Your task to perform on an android device: turn on javascript in the chrome app Image 0: 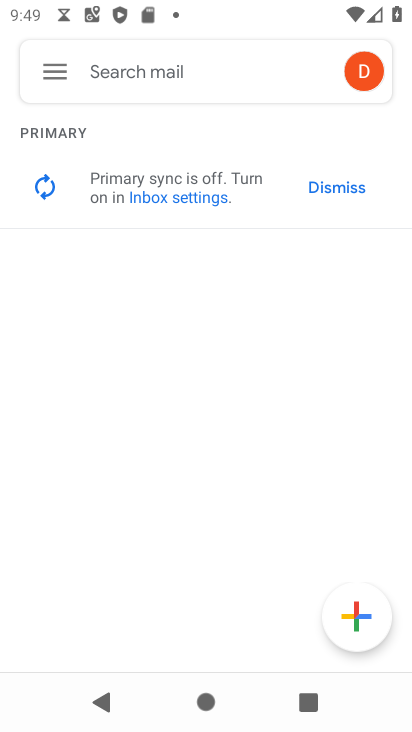
Step 0: press home button
Your task to perform on an android device: turn on javascript in the chrome app Image 1: 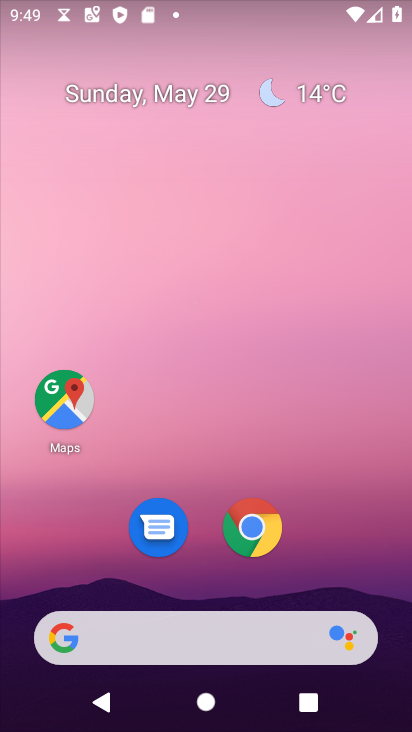
Step 1: click (249, 531)
Your task to perform on an android device: turn on javascript in the chrome app Image 2: 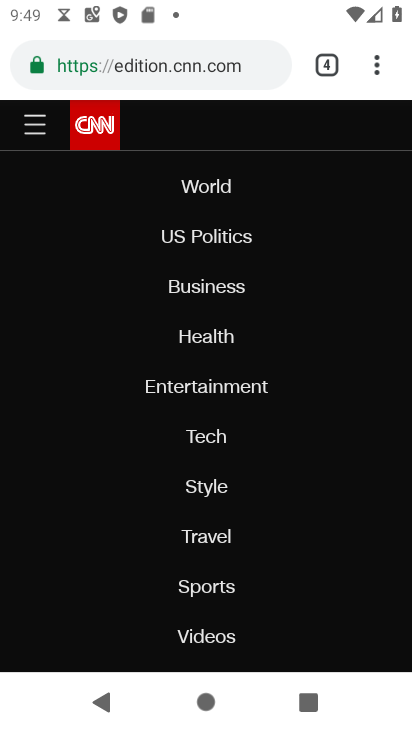
Step 2: drag from (375, 68) to (241, 578)
Your task to perform on an android device: turn on javascript in the chrome app Image 3: 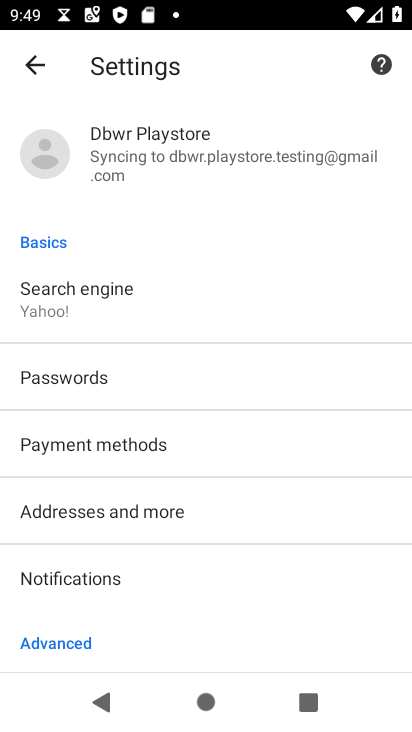
Step 3: drag from (195, 623) to (292, 149)
Your task to perform on an android device: turn on javascript in the chrome app Image 4: 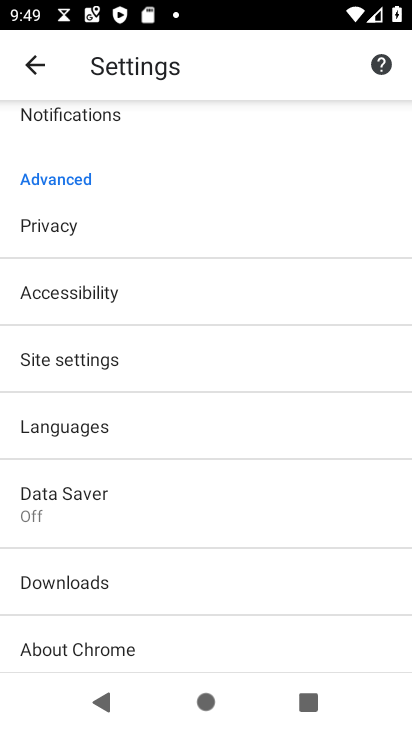
Step 4: click (80, 358)
Your task to perform on an android device: turn on javascript in the chrome app Image 5: 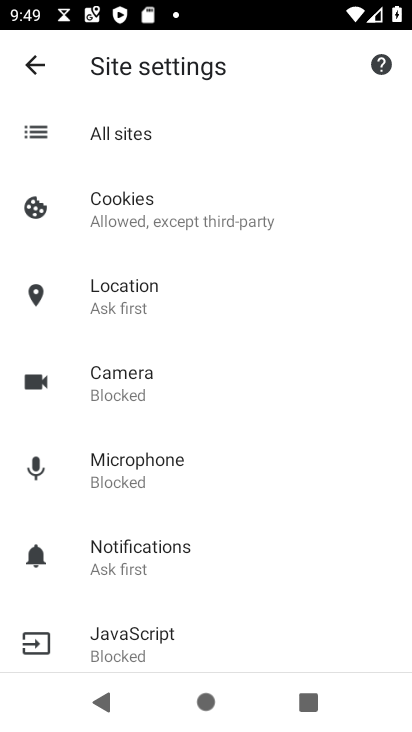
Step 5: drag from (219, 610) to (283, 357)
Your task to perform on an android device: turn on javascript in the chrome app Image 6: 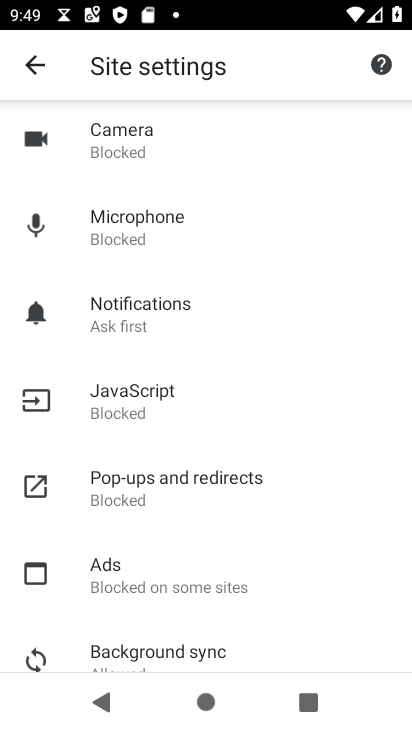
Step 6: click (157, 394)
Your task to perform on an android device: turn on javascript in the chrome app Image 7: 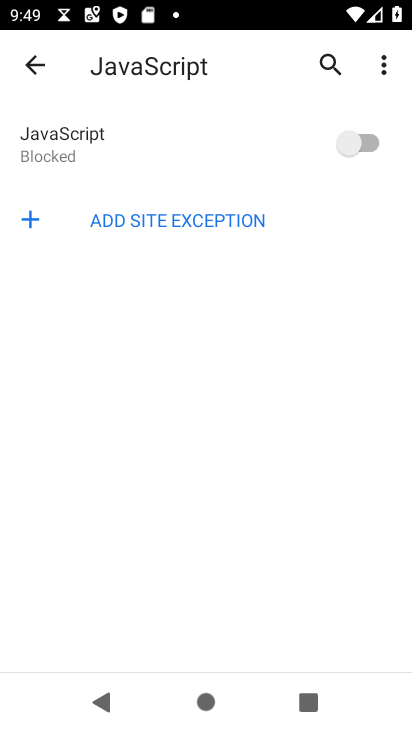
Step 7: click (367, 145)
Your task to perform on an android device: turn on javascript in the chrome app Image 8: 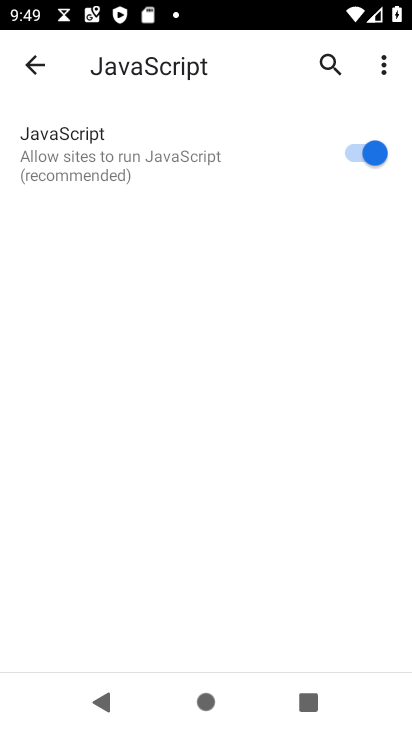
Step 8: task complete